Your task to perform on an android device: Open maps Image 0: 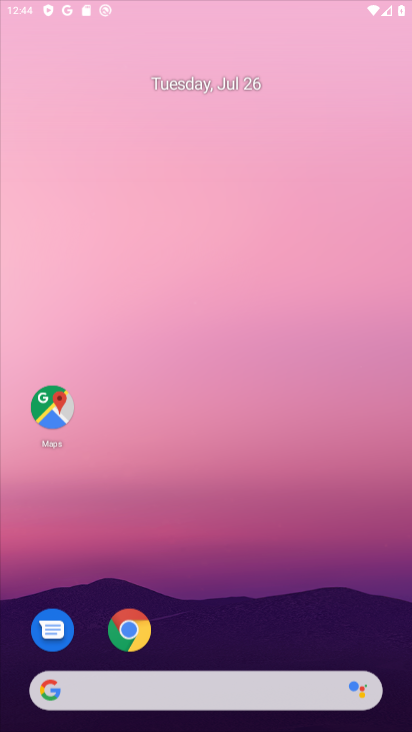
Step 0: drag from (216, 7) to (229, 183)
Your task to perform on an android device: Open maps Image 1: 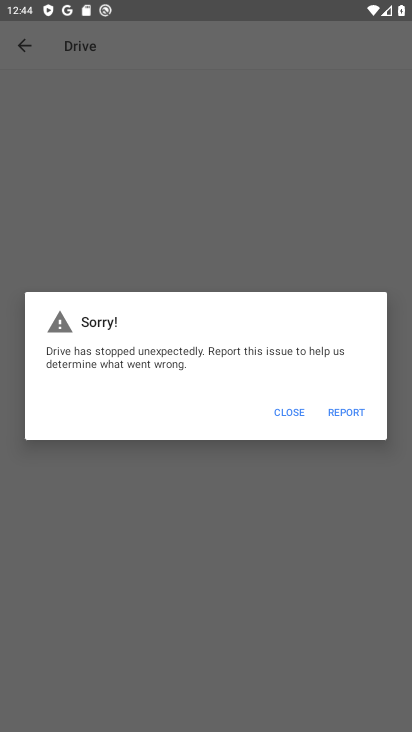
Step 1: press home button
Your task to perform on an android device: Open maps Image 2: 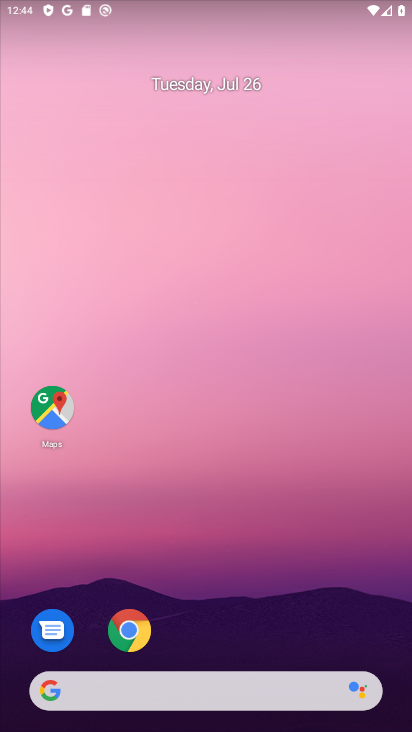
Step 2: click (55, 402)
Your task to perform on an android device: Open maps Image 3: 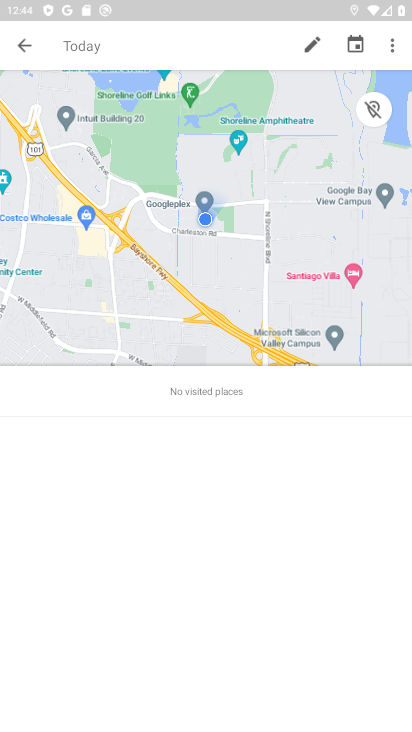
Step 3: task complete